Your task to perform on an android device: Open privacy settings Image 0: 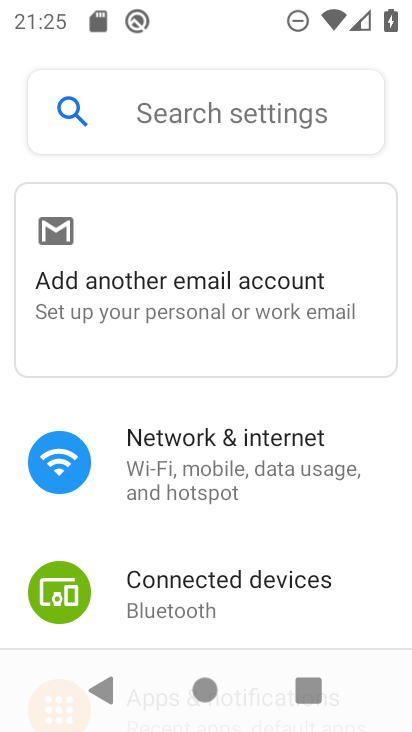
Step 0: press home button
Your task to perform on an android device: Open privacy settings Image 1: 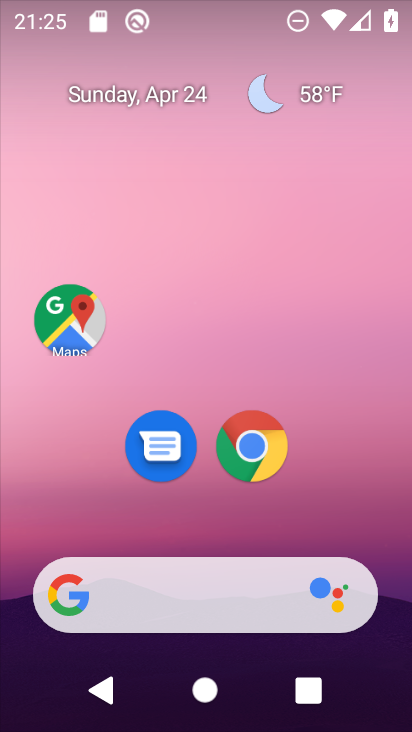
Step 1: drag from (200, 596) to (298, 210)
Your task to perform on an android device: Open privacy settings Image 2: 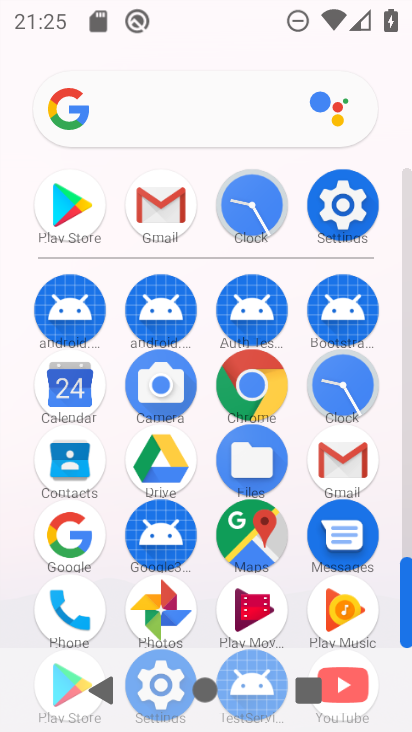
Step 2: click (346, 212)
Your task to perform on an android device: Open privacy settings Image 3: 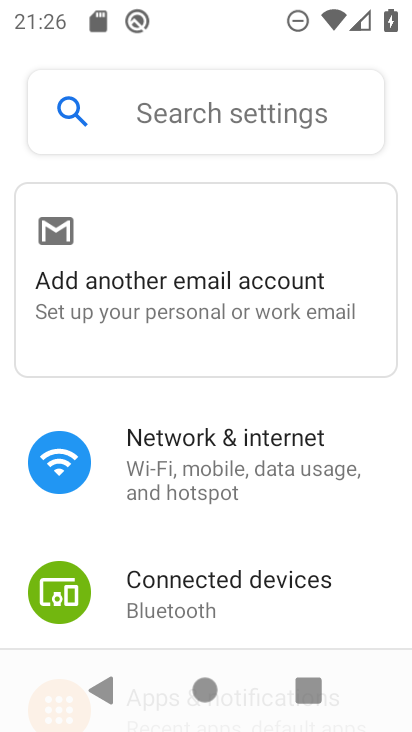
Step 3: drag from (206, 620) to (301, 180)
Your task to perform on an android device: Open privacy settings Image 4: 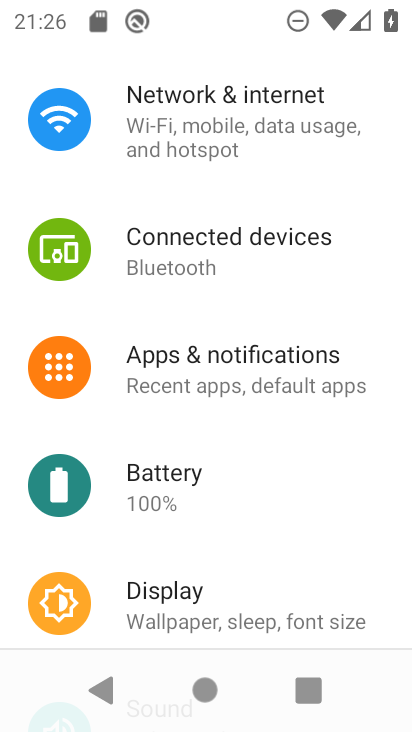
Step 4: drag from (230, 565) to (371, 91)
Your task to perform on an android device: Open privacy settings Image 5: 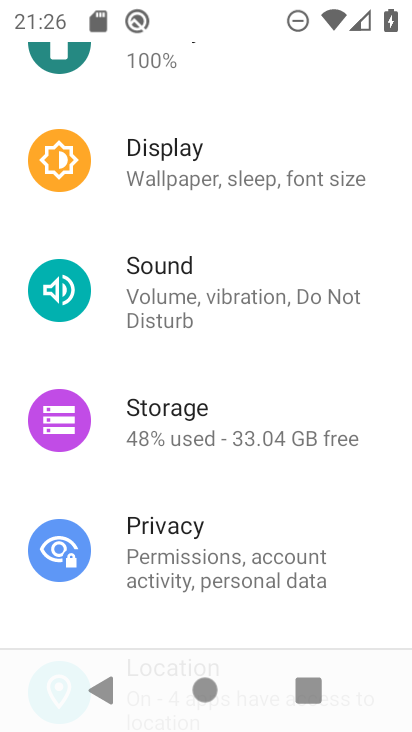
Step 5: click (172, 527)
Your task to perform on an android device: Open privacy settings Image 6: 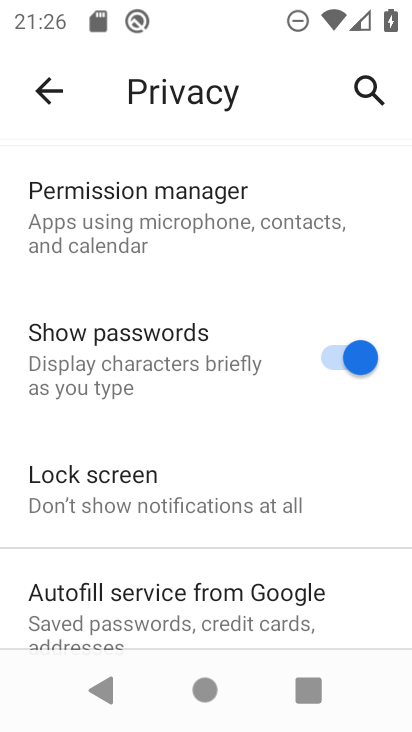
Step 6: task complete